Your task to perform on an android device: turn off improve location accuracy Image 0: 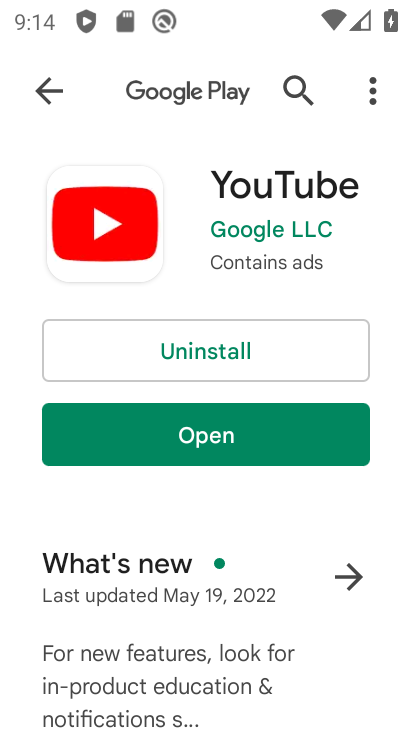
Step 0: press back button
Your task to perform on an android device: turn off improve location accuracy Image 1: 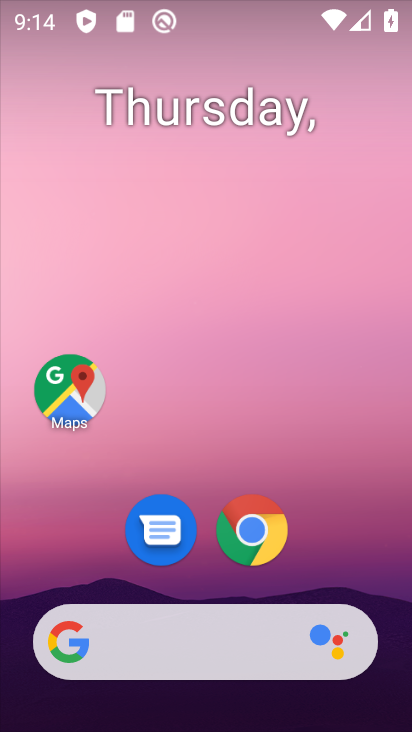
Step 1: drag from (359, 542) to (297, 29)
Your task to perform on an android device: turn off improve location accuracy Image 2: 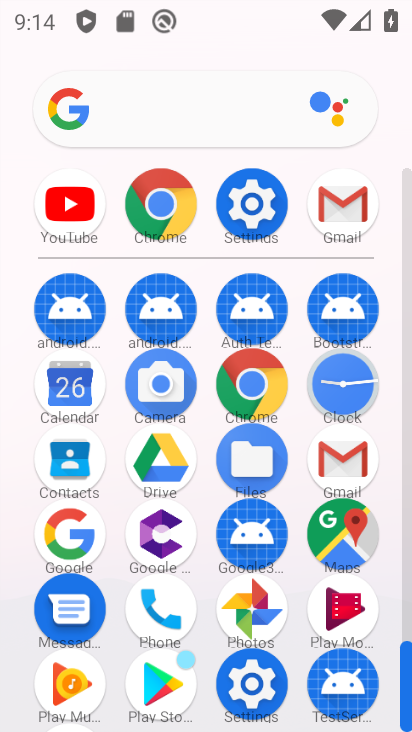
Step 2: drag from (9, 620) to (21, 267)
Your task to perform on an android device: turn off improve location accuracy Image 3: 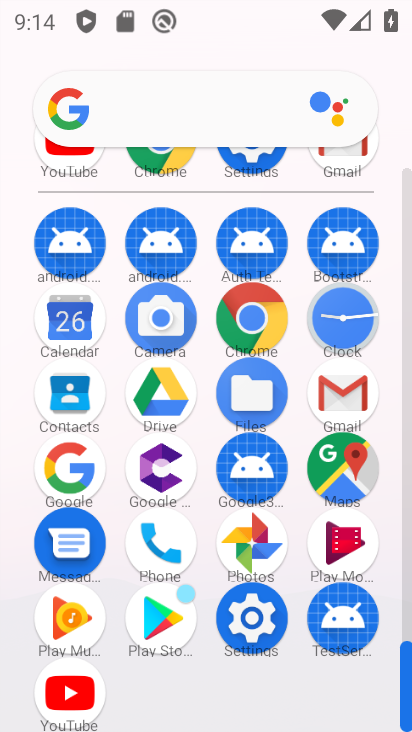
Step 3: click (255, 615)
Your task to perform on an android device: turn off improve location accuracy Image 4: 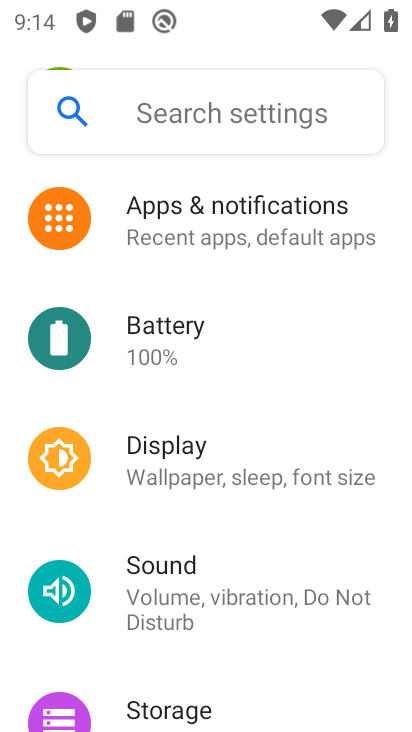
Step 4: drag from (281, 599) to (289, 248)
Your task to perform on an android device: turn off improve location accuracy Image 5: 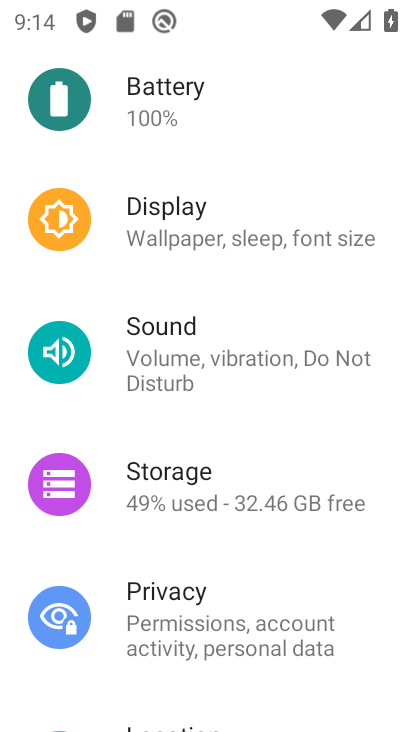
Step 5: drag from (273, 604) to (269, 217)
Your task to perform on an android device: turn off improve location accuracy Image 6: 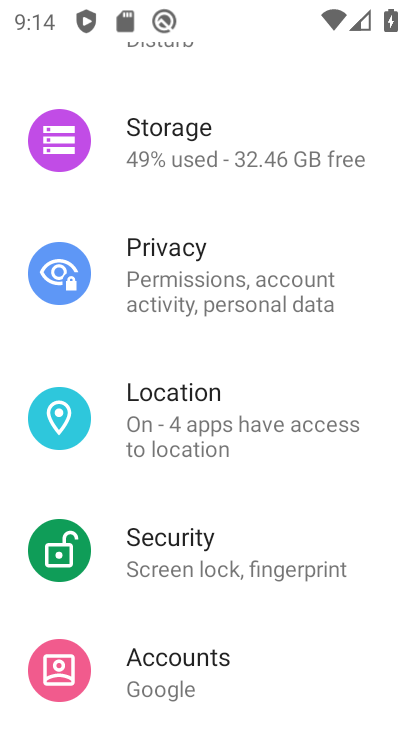
Step 6: click (203, 423)
Your task to perform on an android device: turn off improve location accuracy Image 7: 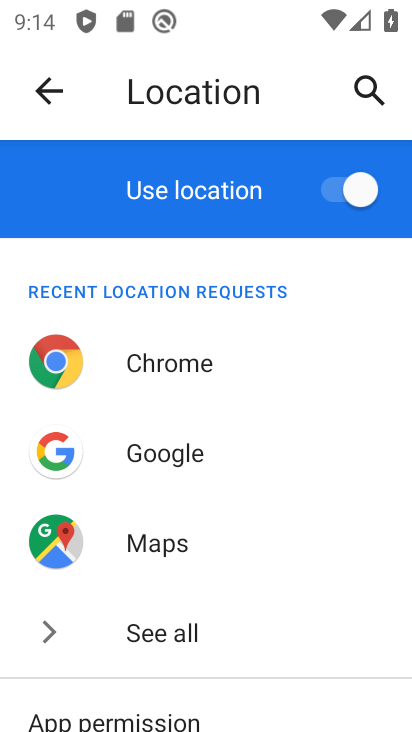
Step 7: click (329, 180)
Your task to perform on an android device: turn off improve location accuracy Image 8: 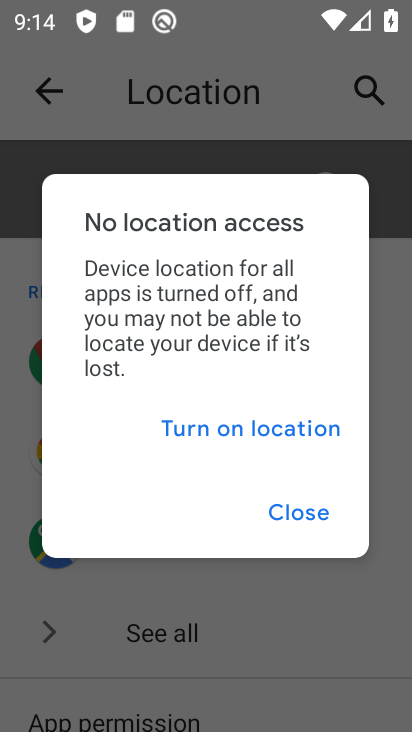
Step 8: click (303, 509)
Your task to perform on an android device: turn off improve location accuracy Image 9: 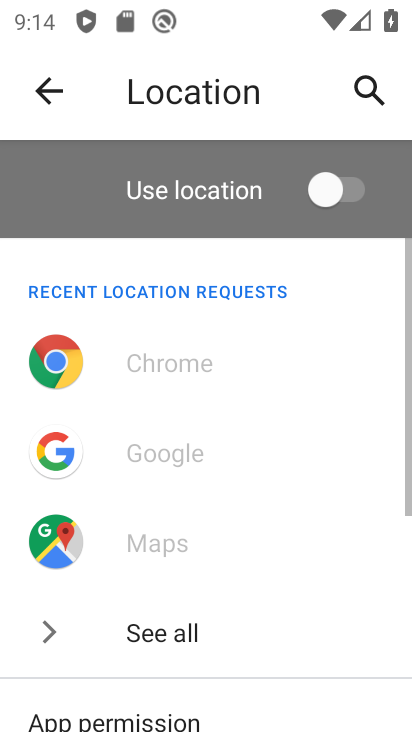
Step 9: click (346, 175)
Your task to perform on an android device: turn off improve location accuracy Image 10: 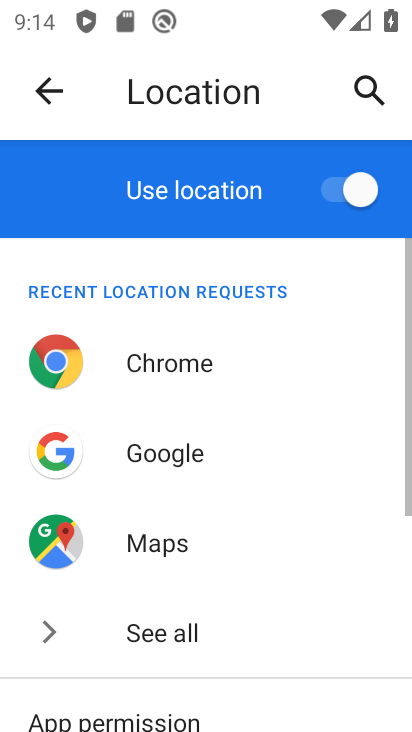
Step 10: drag from (324, 569) to (285, 196)
Your task to perform on an android device: turn off improve location accuracy Image 11: 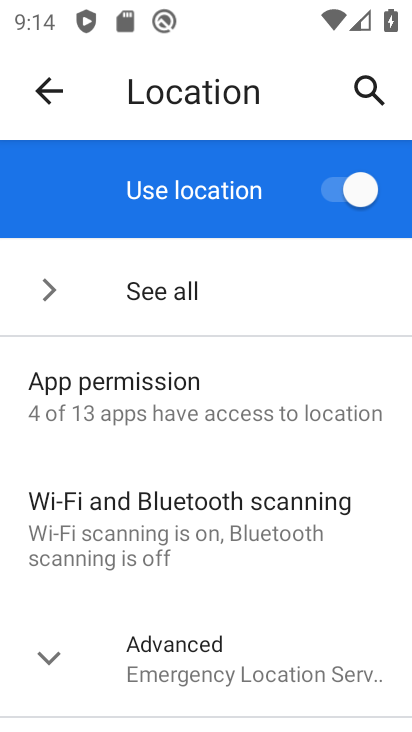
Step 11: click (151, 517)
Your task to perform on an android device: turn off improve location accuracy Image 12: 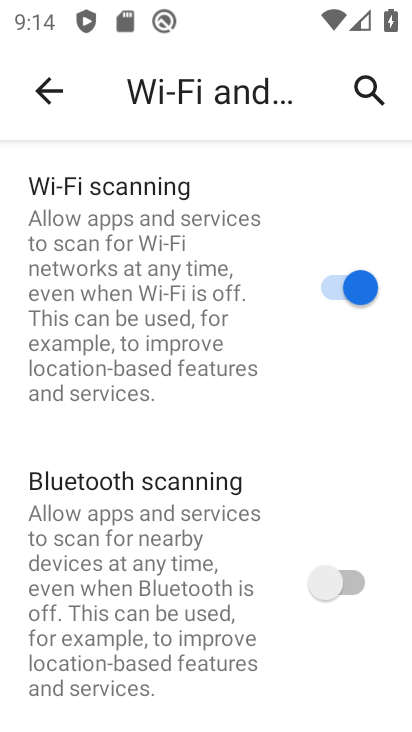
Step 12: click (39, 73)
Your task to perform on an android device: turn off improve location accuracy Image 13: 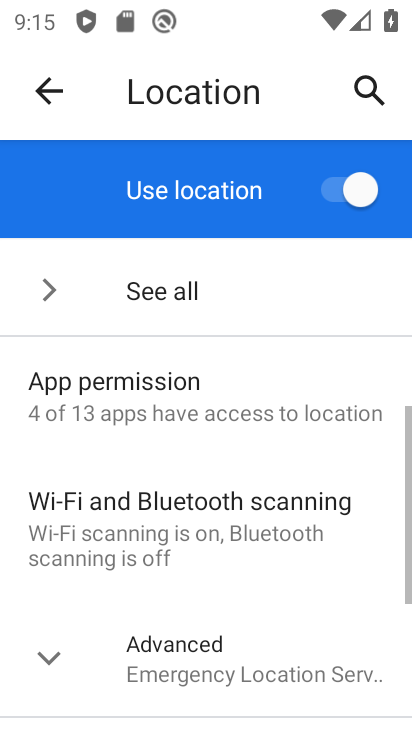
Step 13: click (116, 644)
Your task to perform on an android device: turn off improve location accuracy Image 14: 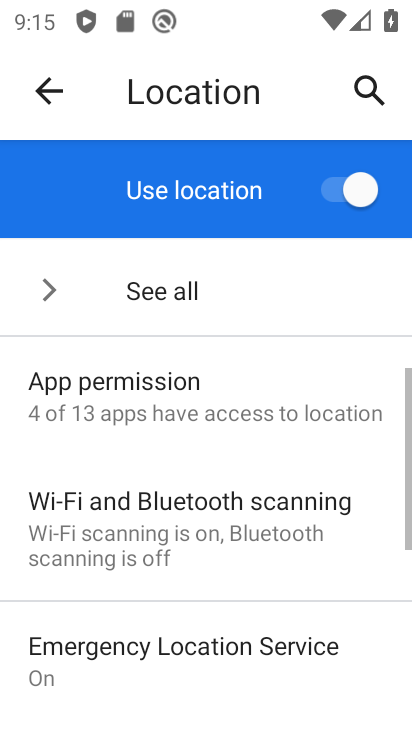
Step 14: drag from (219, 630) to (181, 194)
Your task to perform on an android device: turn off improve location accuracy Image 15: 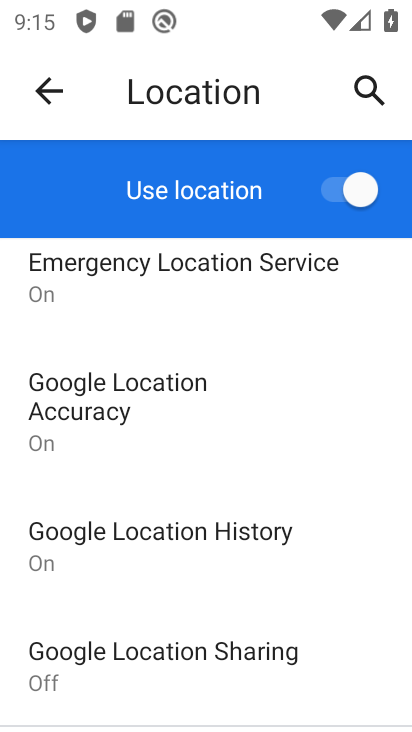
Step 15: click (137, 392)
Your task to perform on an android device: turn off improve location accuracy Image 16: 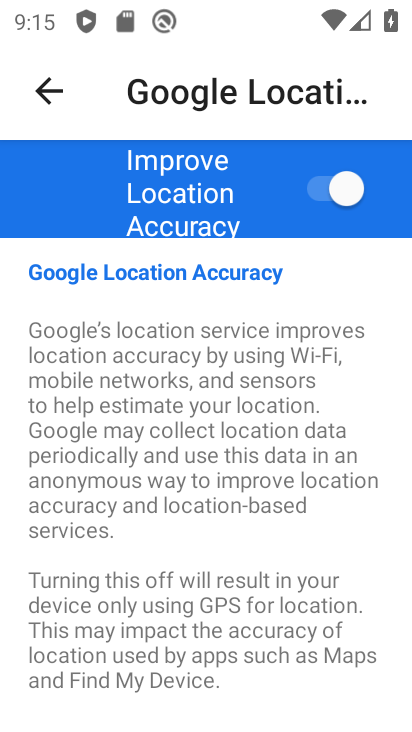
Step 16: click (342, 191)
Your task to perform on an android device: turn off improve location accuracy Image 17: 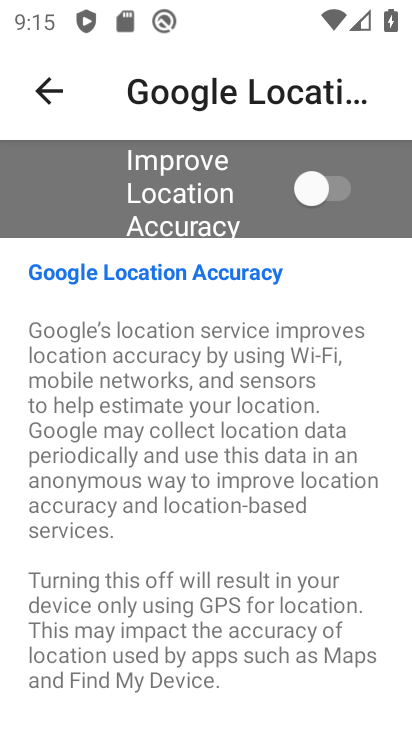
Step 17: task complete